Your task to perform on an android device: refresh tabs in the chrome app Image 0: 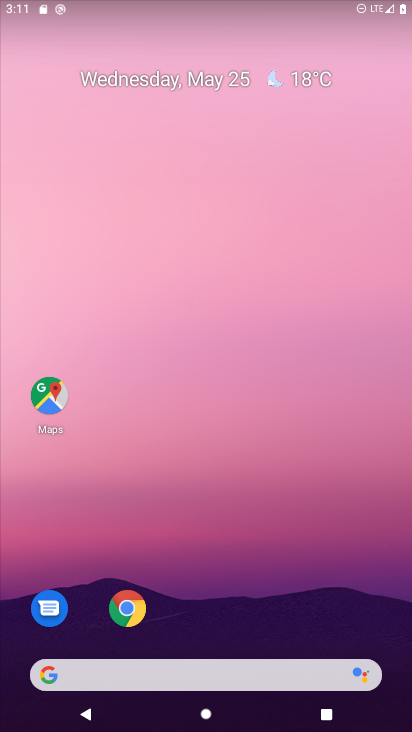
Step 0: click (125, 609)
Your task to perform on an android device: refresh tabs in the chrome app Image 1: 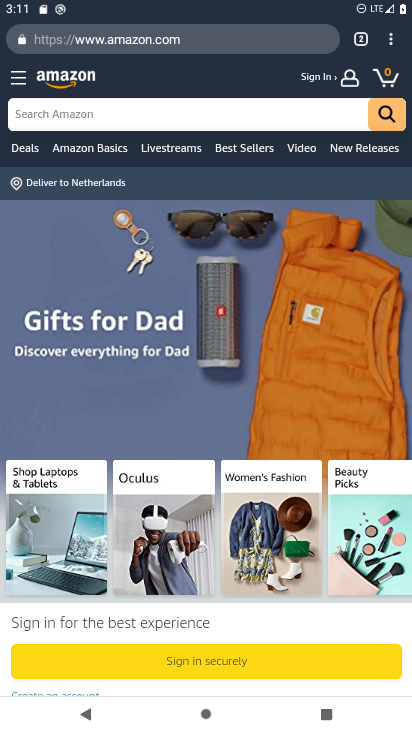
Step 1: click (392, 43)
Your task to perform on an android device: refresh tabs in the chrome app Image 2: 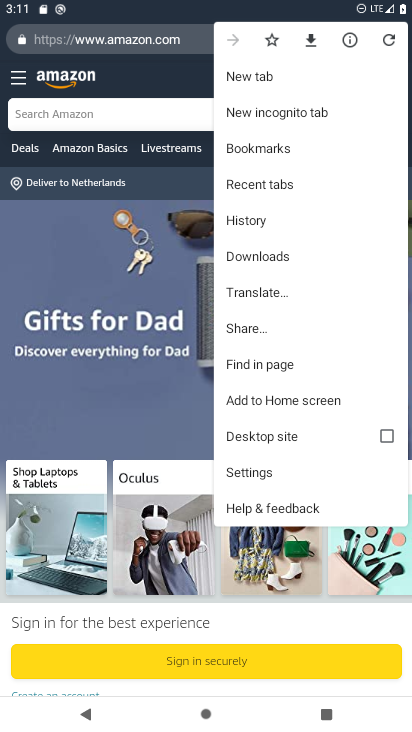
Step 2: click (387, 38)
Your task to perform on an android device: refresh tabs in the chrome app Image 3: 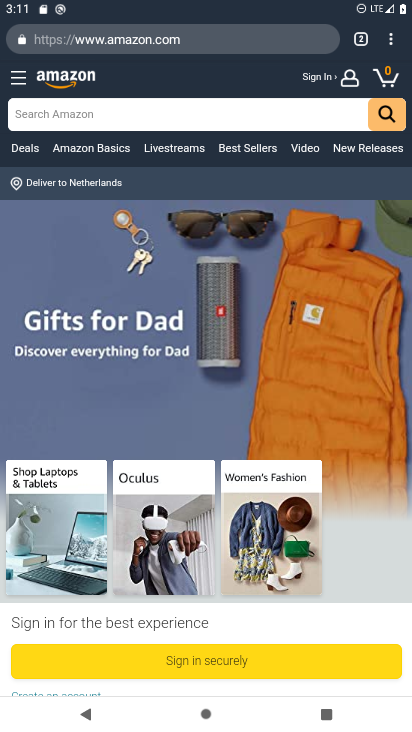
Step 3: task complete